Your task to perform on an android device: Clear the cart on newegg.com. Search for sony triple a on newegg.com, select the first entry, and add it to the cart. Image 0: 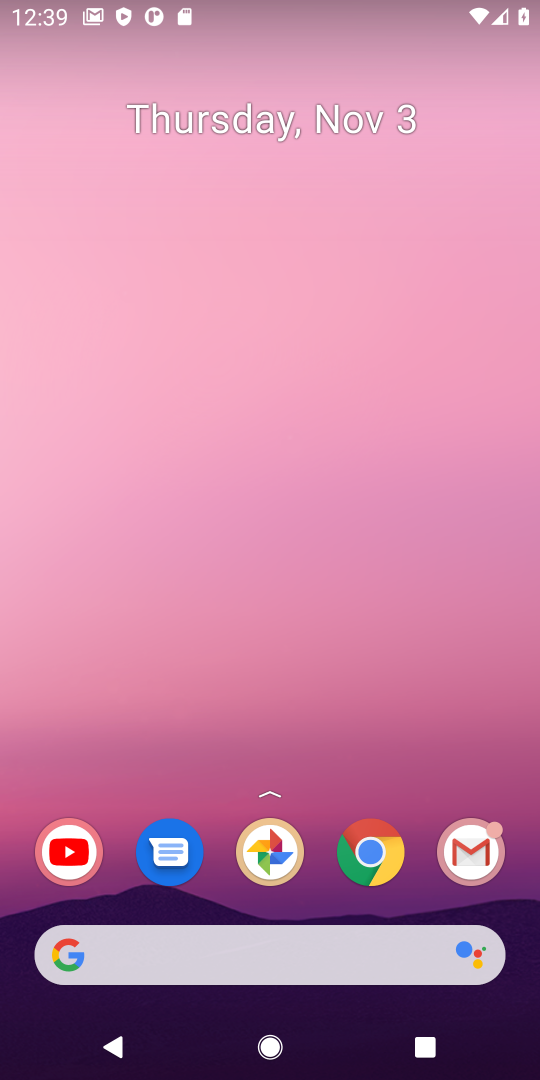
Step 0: click (368, 860)
Your task to perform on an android device: Clear the cart on newegg.com. Search for sony triple a on newegg.com, select the first entry, and add it to the cart. Image 1: 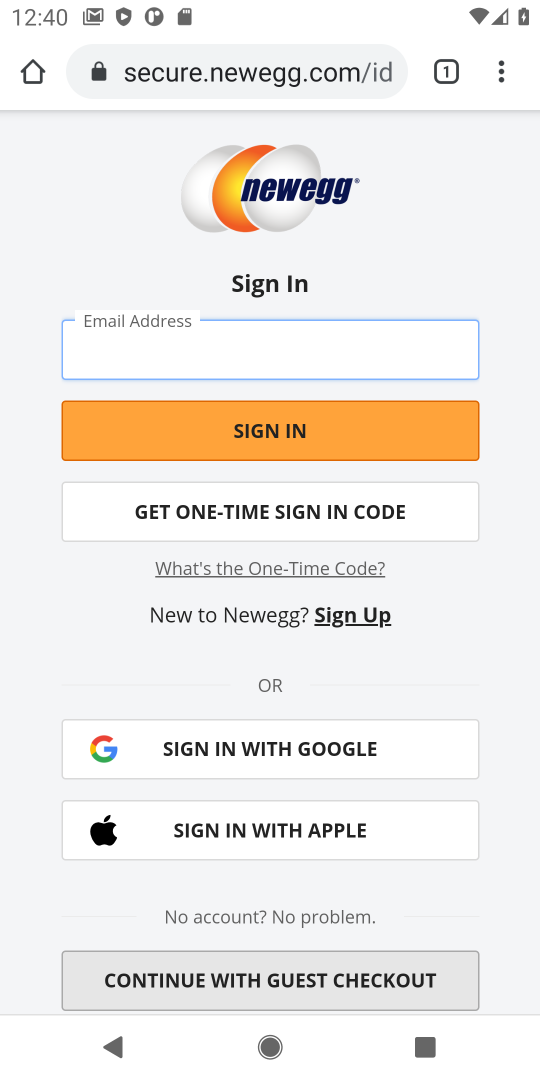
Step 1: click (250, 83)
Your task to perform on an android device: Clear the cart on newegg.com. Search for sony triple a on newegg.com, select the first entry, and add it to the cart. Image 2: 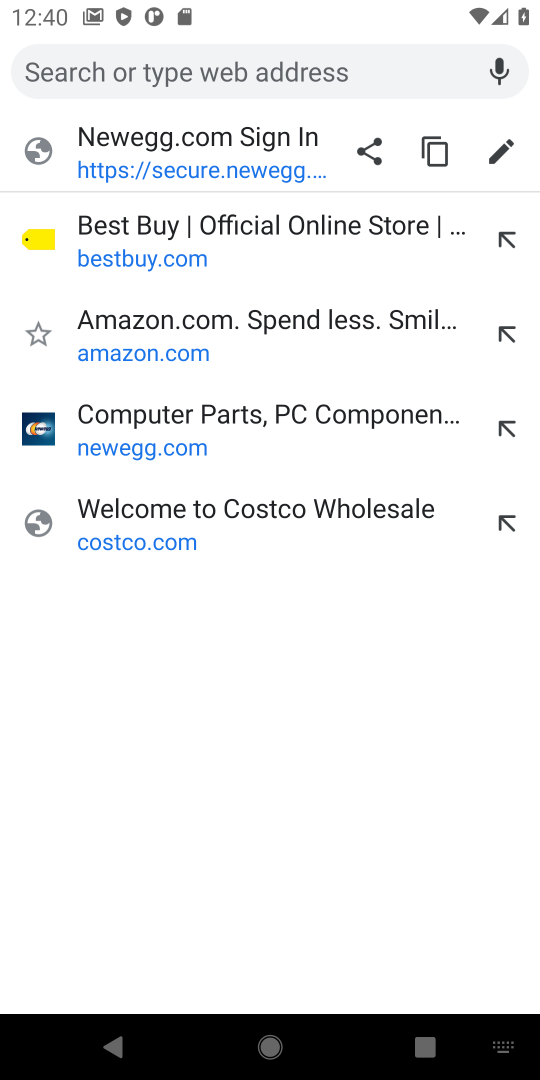
Step 2: type "newegg.com"
Your task to perform on an android device: Clear the cart on newegg.com. Search for sony triple a on newegg.com, select the first entry, and add it to the cart. Image 3: 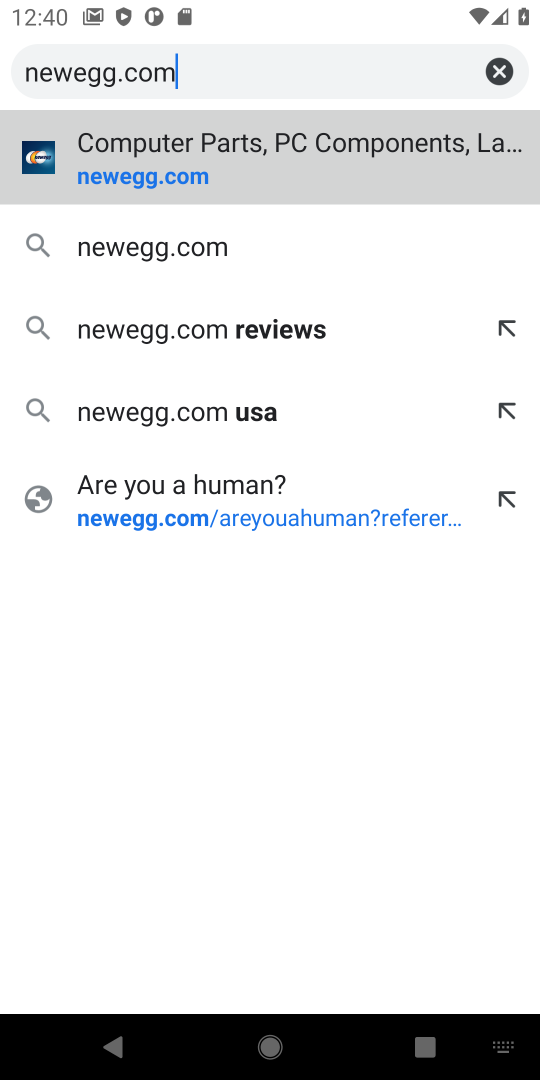
Step 3: click (135, 258)
Your task to perform on an android device: Clear the cart on newegg.com. Search for sony triple a on newegg.com, select the first entry, and add it to the cart. Image 4: 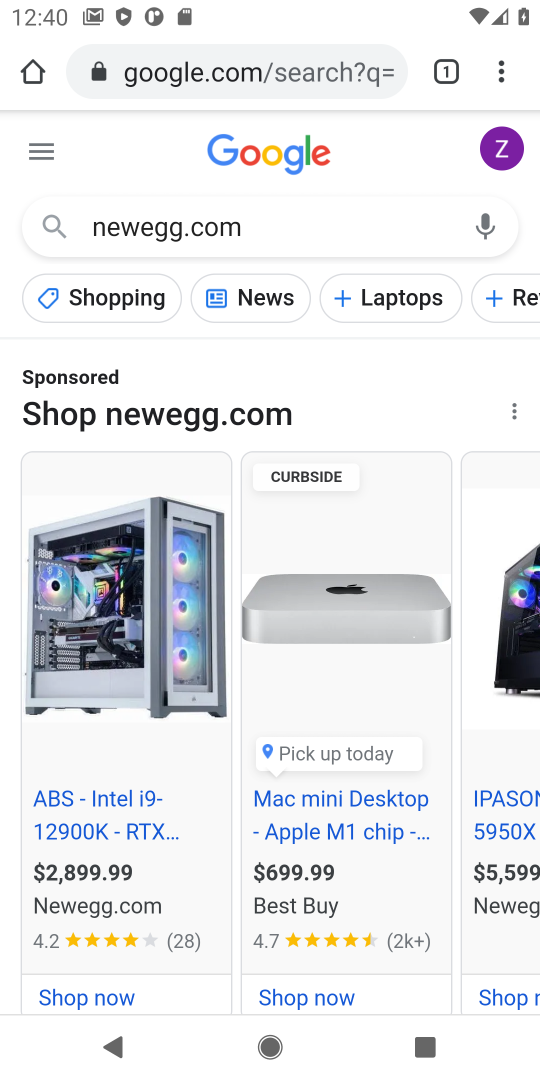
Step 4: drag from (205, 655) to (248, 143)
Your task to perform on an android device: Clear the cart on newegg.com. Search for sony triple a on newegg.com, select the first entry, and add it to the cart. Image 5: 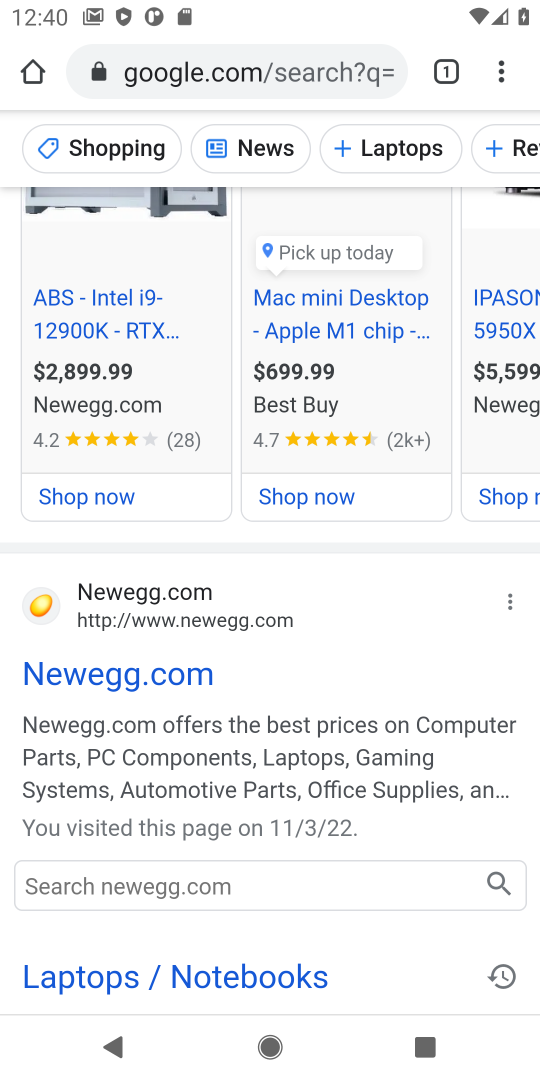
Step 5: click (42, 673)
Your task to perform on an android device: Clear the cart on newegg.com. Search for sony triple a on newegg.com, select the first entry, and add it to the cart. Image 6: 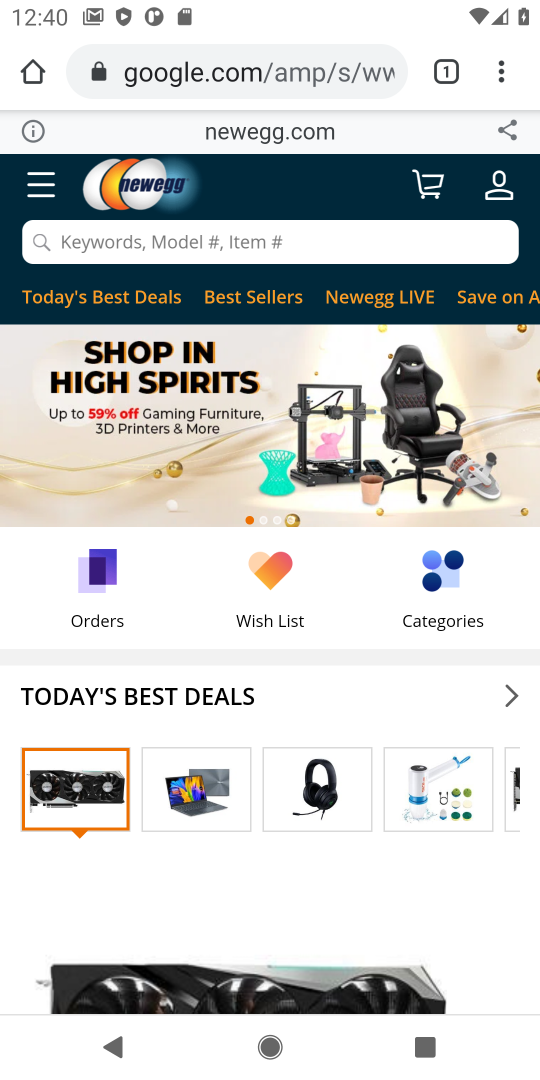
Step 6: click (421, 188)
Your task to perform on an android device: Clear the cart on newegg.com. Search for sony triple a on newegg.com, select the first entry, and add it to the cart. Image 7: 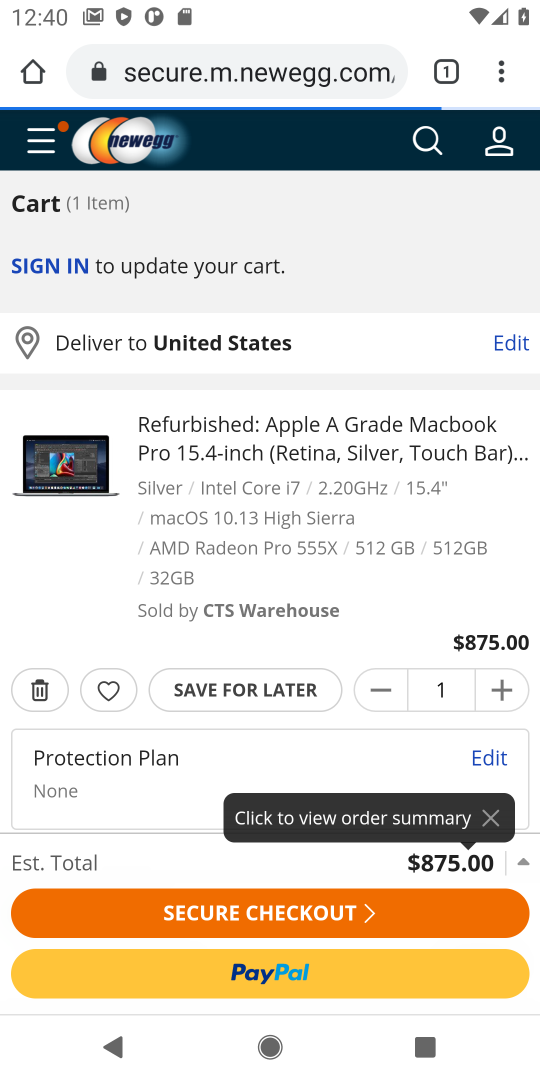
Step 7: click (43, 692)
Your task to perform on an android device: Clear the cart on newegg.com. Search for sony triple a on newegg.com, select the first entry, and add it to the cart. Image 8: 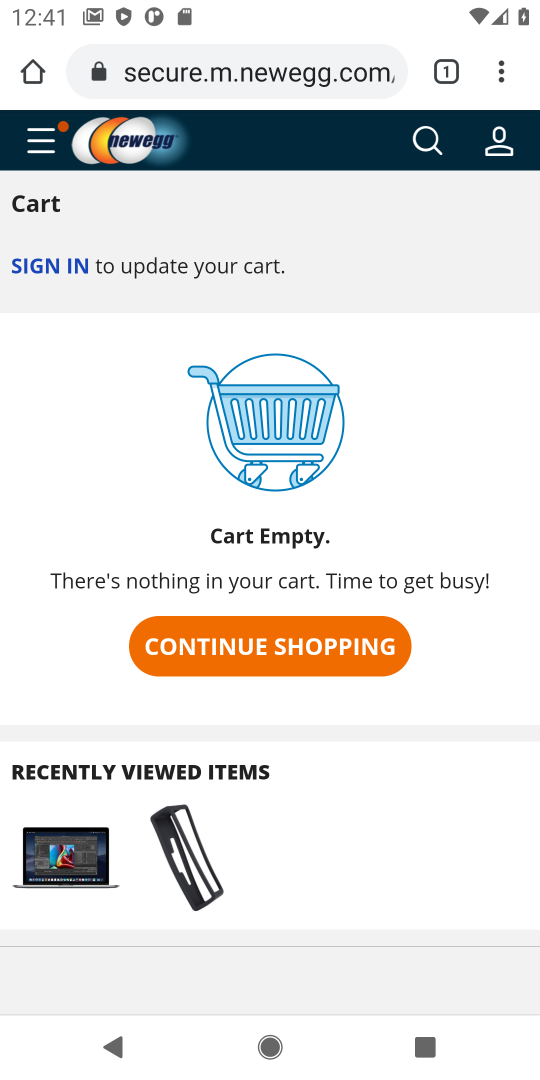
Step 8: click (238, 649)
Your task to perform on an android device: Clear the cart on newegg.com. Search for sony triple a on newegg.com, select the first entry, and add it to the cart. Image 9: 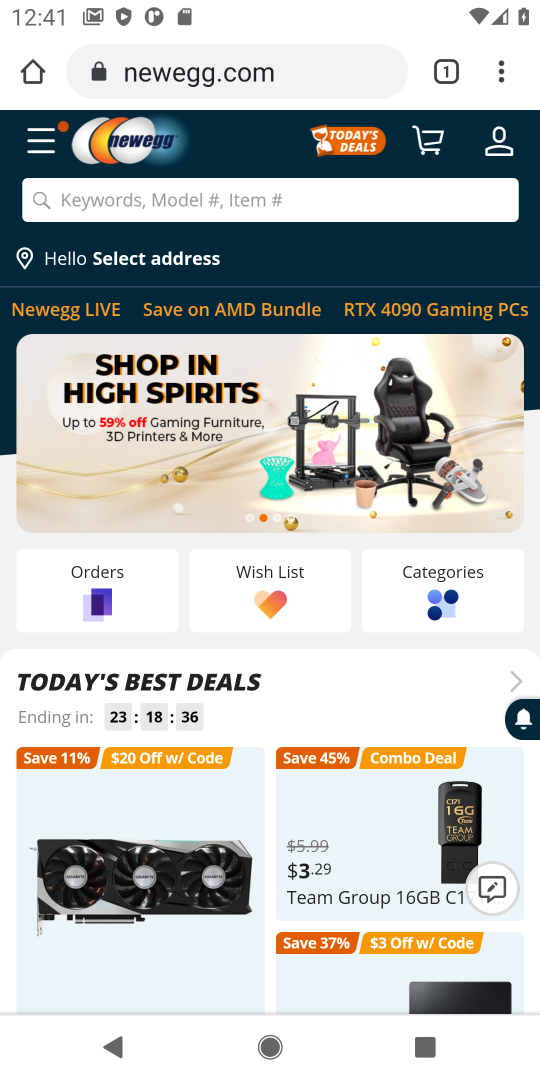
Step 9: click (260, 192)
Your task to perform on an android device: Clear the cart on newegg.com. Search for sony triple a on newegg.com, select the first entry, and add it to the cart. Image 10: 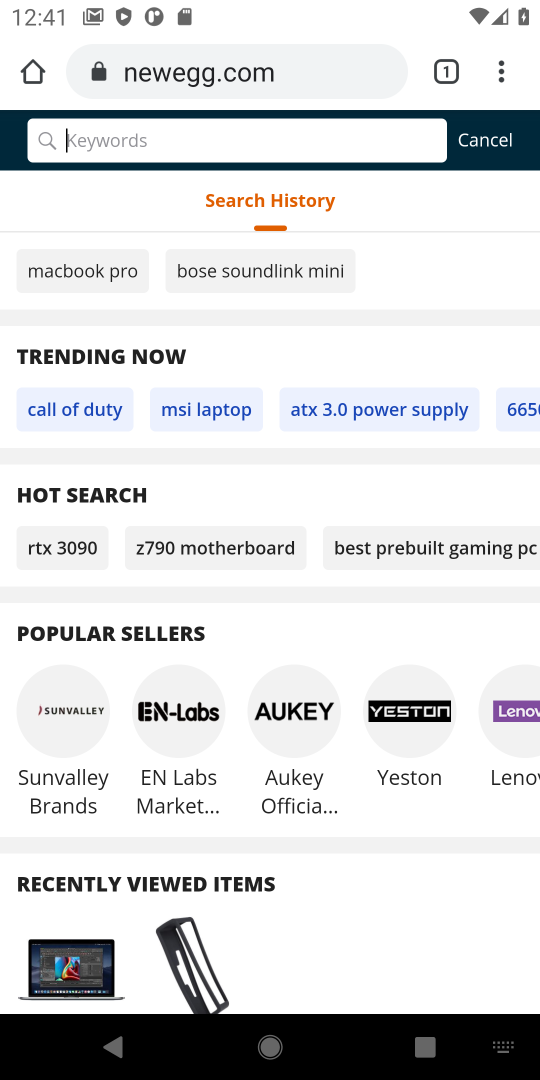
Step 10: type "sony triple a"
Your task to perform on an android device: Clear the cart on newegg.com. Search for sony triple a on newegg.com, select the first entry, and add it to the cart. Image 11: 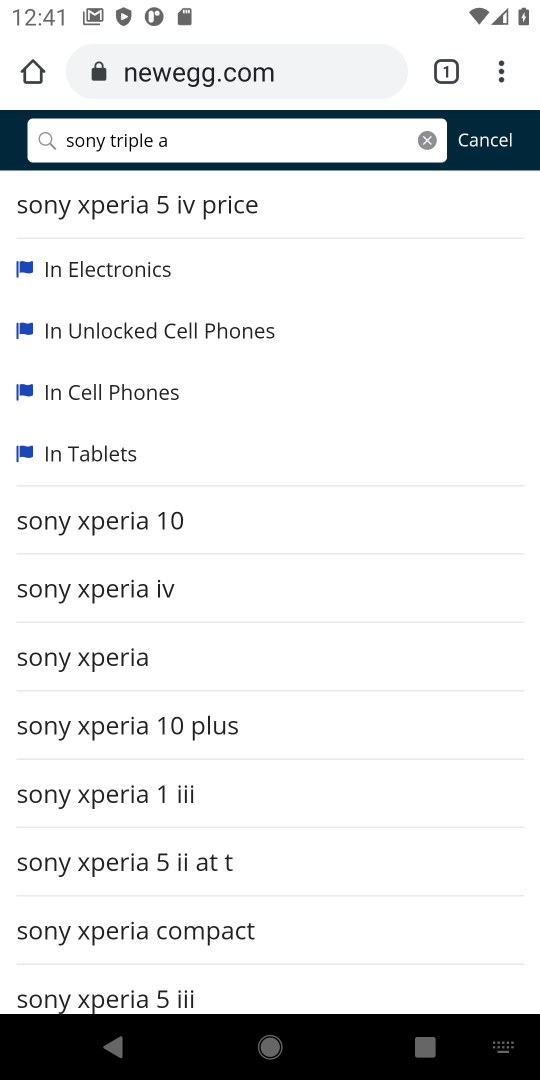
Step 11: drag from (219, 711) to (219, 401)
Your task to perform on an android device: Clear the cart on newegg.com. Search for sony triple a on newegg.com, select the first entry, and add it to the cart. Image 12: 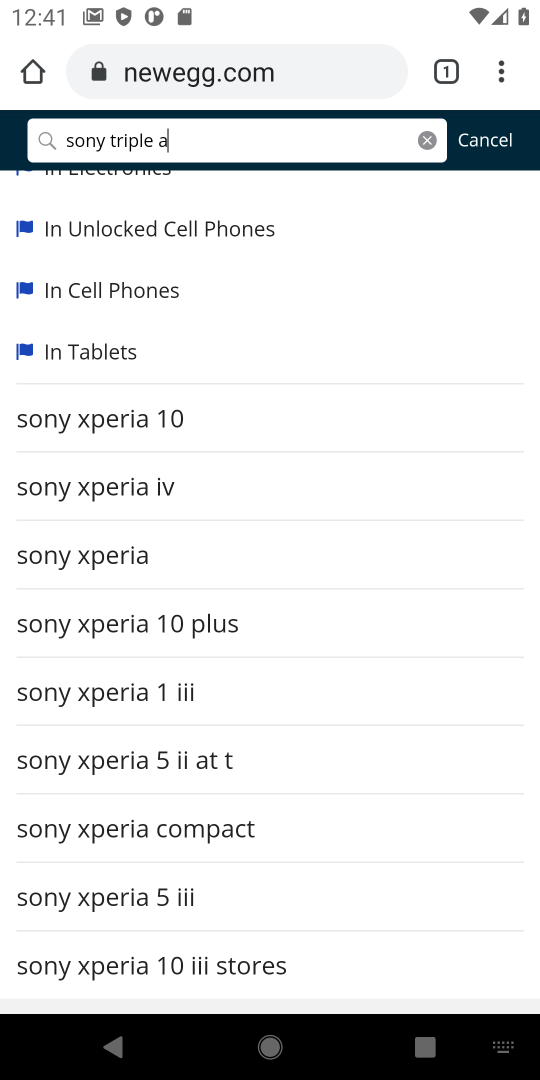
Step 12: drag from (219, 400) to (218, 848)
Your task to perform on an android device: Clear the cart on newegg.com. Search for sony triple a on newegg.com, select the first entry, and add it to the cart. Image 13: 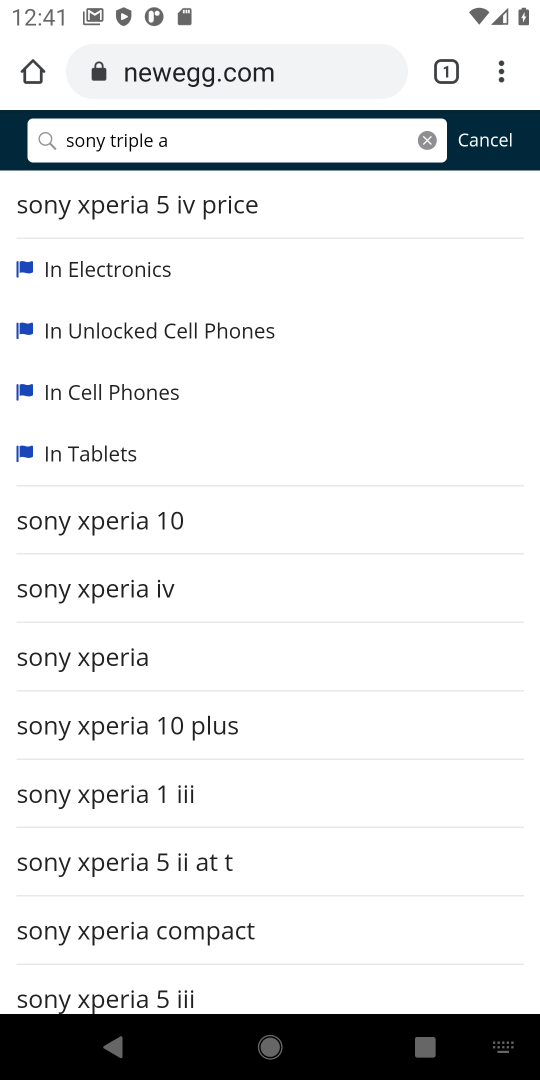
Step 13: click (45, 137)
Your task to perform on an android device: Clear the cart on newegg.com. Search for sony triple a on newegg.com, select the first entry, and add it to the cart. Image 14: 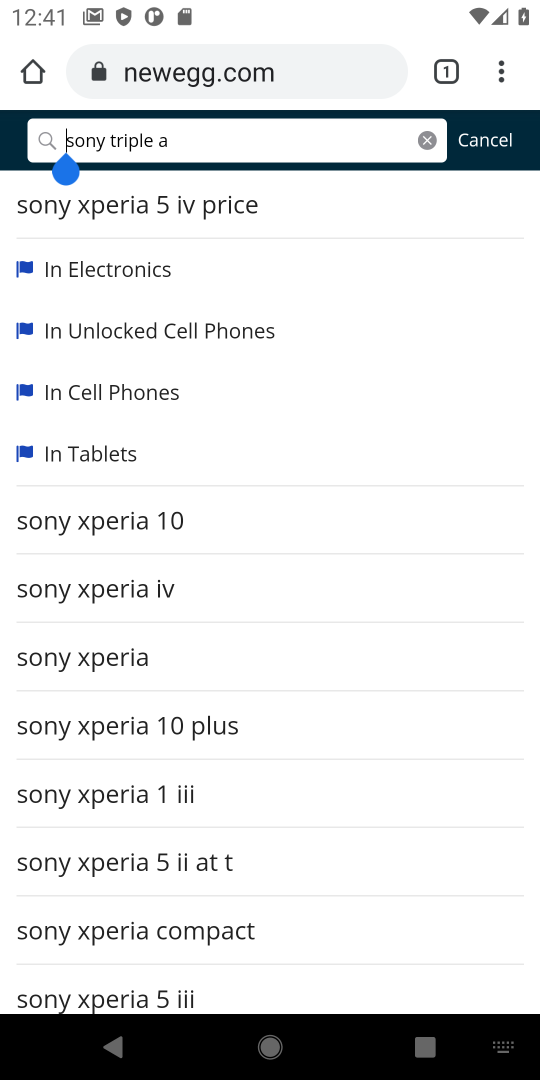
Step 14: task complete